Your task to perform on an android device: check data usage Image 0: 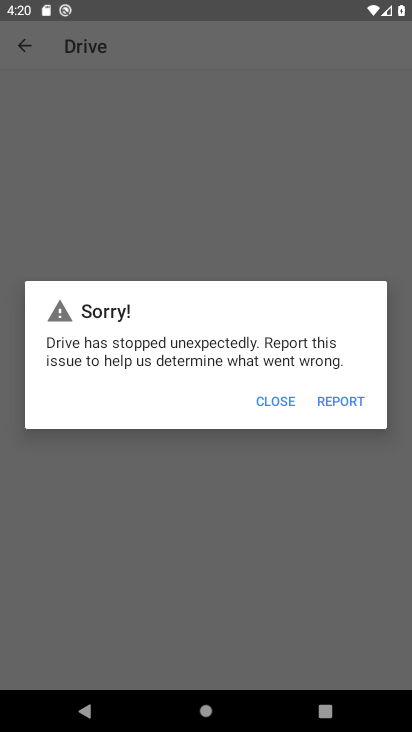
Step 0: press home button
Your task to perform on an android device: check data usage Image 1: 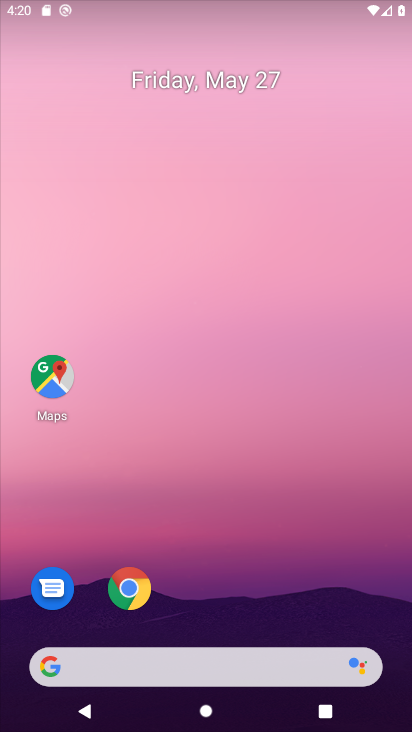
Step 1: drag from (156, 730) to (153, 51)
Your task to perform on an android device: check data usage Image 2: 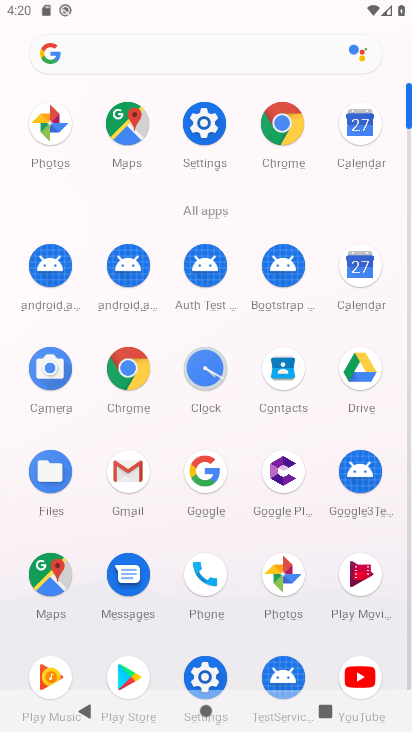
Step 2: click (207, 134)
Your task to perform on an android device: check data usage Image 3: 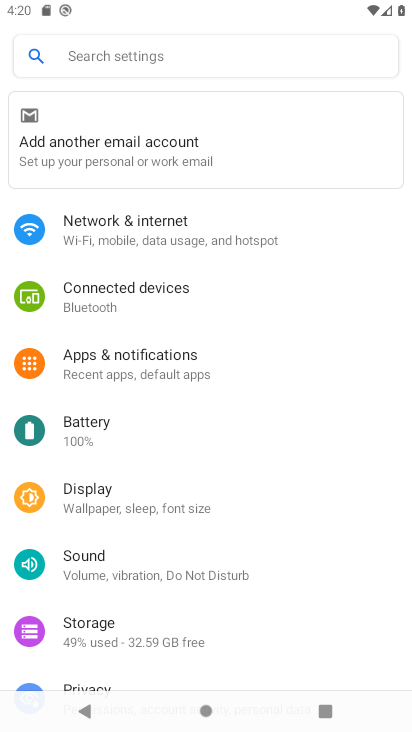
Step 3: click (191, 236)
Your task to perform on an android device: check data usage Image 4: 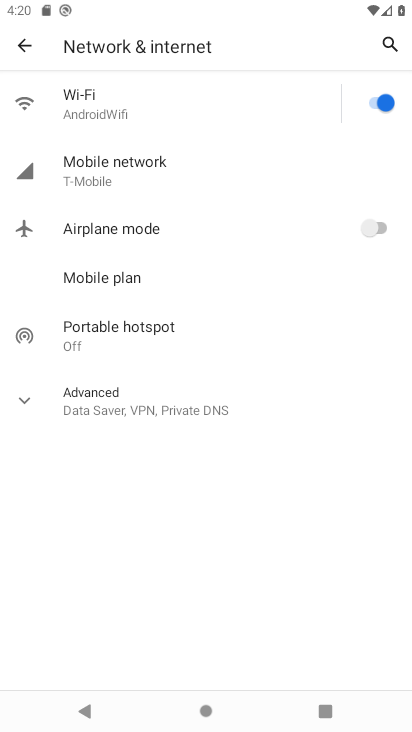
Step 4: click (134, 178)
Your task to perform on an android device: check data usage Image 5: 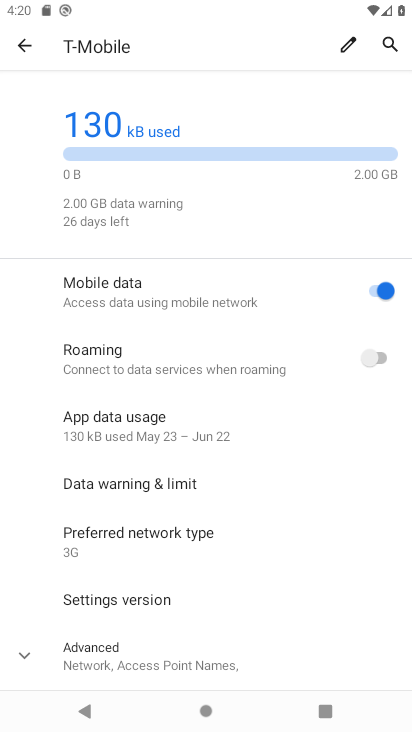
Step 5: click (308, 205)
Your task to perform on an android device: check data usage Image 6: 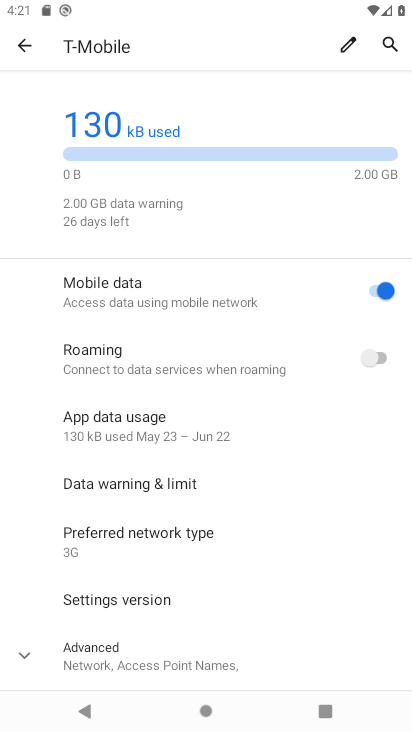
Step 6: task complete